Your task to perform on an android device: Go to wifi settings Image 0: 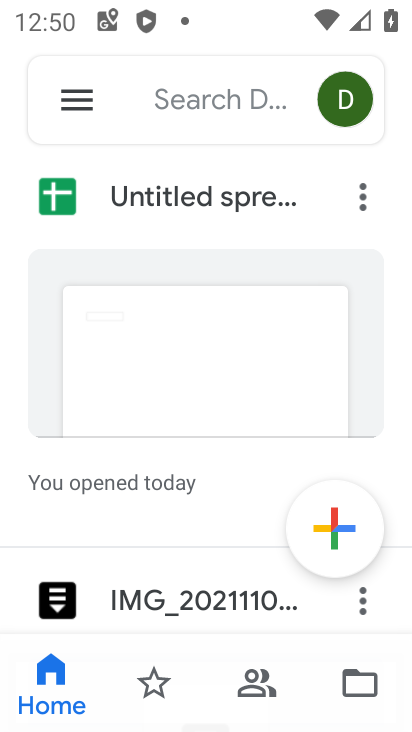
Step 0: press home button
Your task to perform on an android device: Go to wifi settings Image 1: 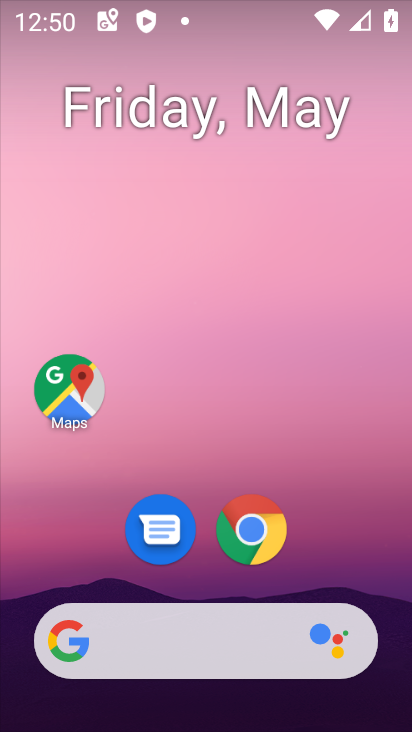
Step 1: drag from (400, 533) to (321, 48)
Your task to perform on an android device: Go to wifi settings Image 2: 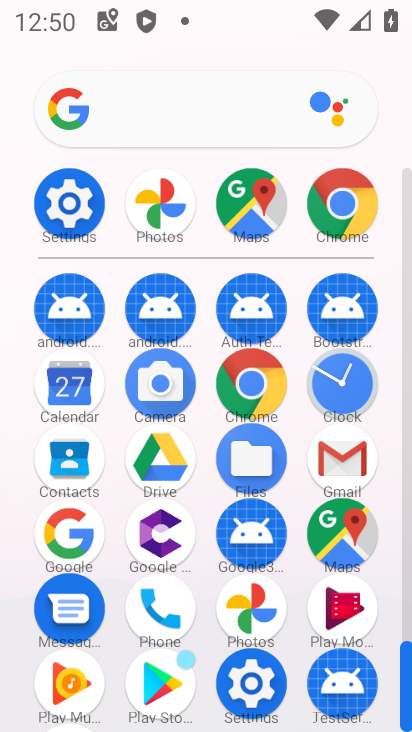
Step 2: click (63, 221)
Your task to perform on an android device: Go to wifi settings Image 3: 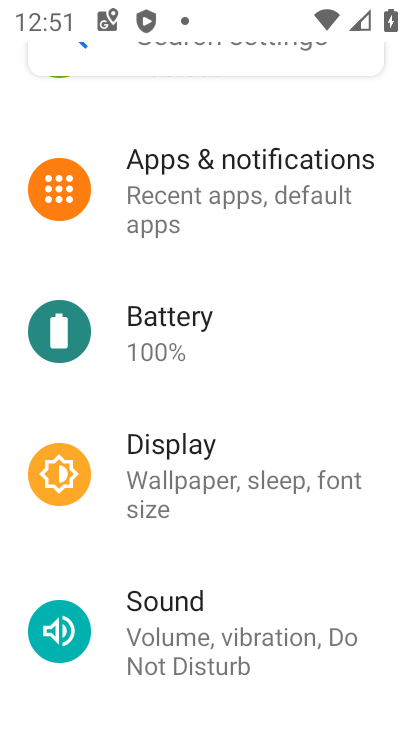
Step 3: drag from (196, 317) to (177, 730)
Your task to perform on an android device: Go to wifi settings Image 4: 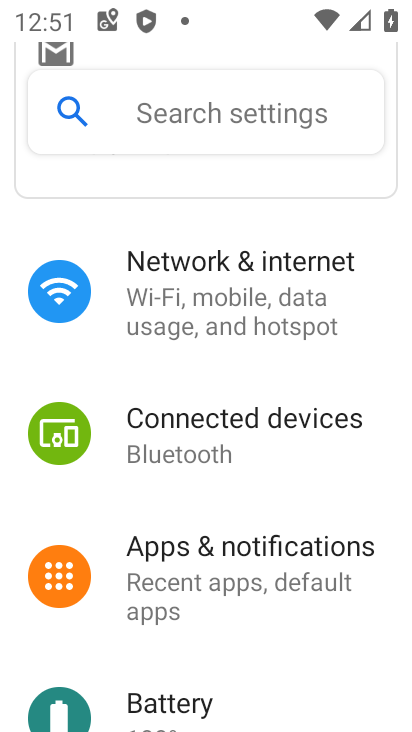
Step 4: click (228, 297)
Your task to perform on an android device: Go to wifi settings Image 5: 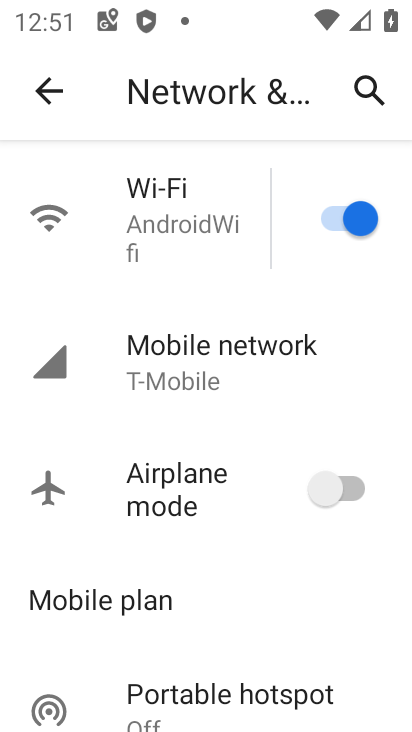
Step 5: task complete